Your task to perform on an android device: turn off wifi Image 0: 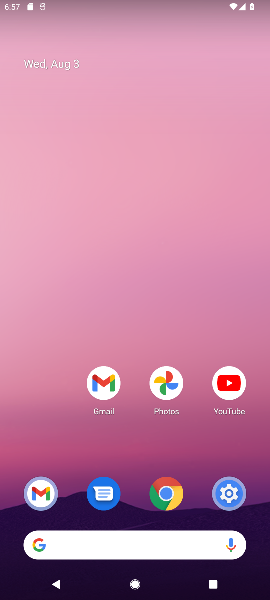
Step 0: drag from (133, 472) to (148, 117)
Your task to perform on an android device: turn off wifi Image 1: 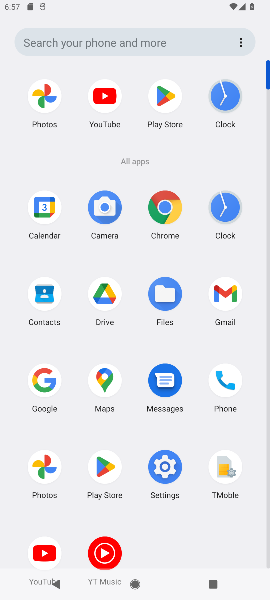
Step 1: click (158, 459)
Your task to perform on an android device: turn off wifi Image 2: 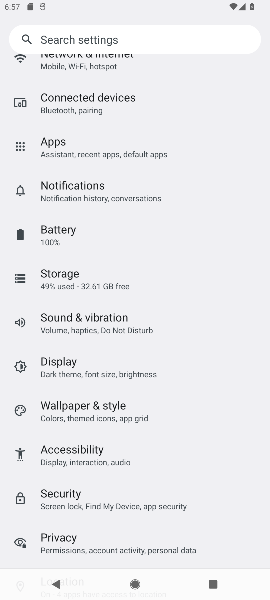
Step 2: drag from (92, 104) to (101, 465)
Your task to perform on an android device: turn off wifi Image 3: 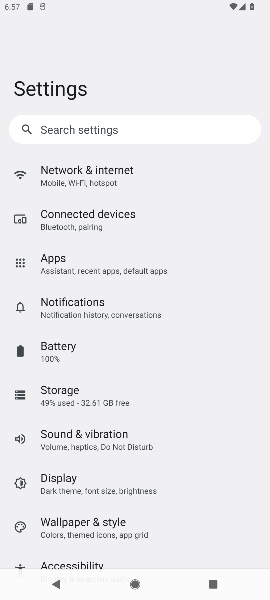
Step 3: click (89, 177)
Your task to perform on an android device: turn off wifi Image 4: 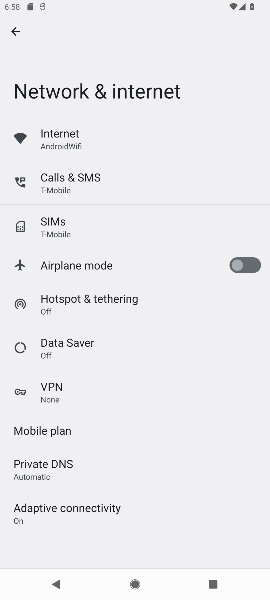
Step 4: click (71, 132)
Your task to perform on an android device: turn off wifi Image 5: 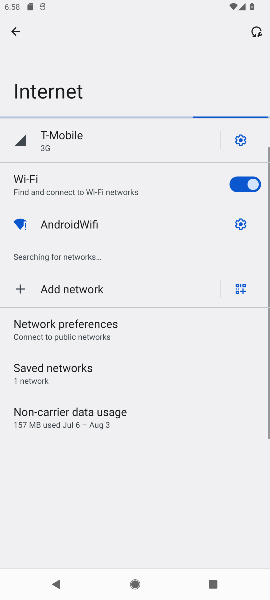
Step 5: click (244, 182)
Your task to perform on an android device: turn off wifi Image 6: 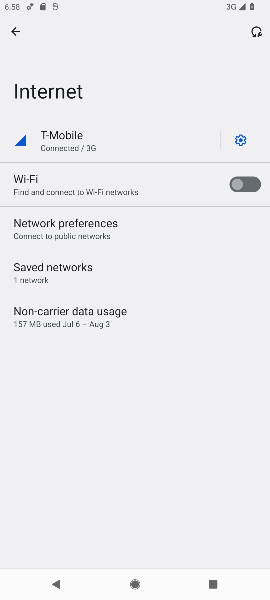
Step 6: task complete